Your task to perform on an android device: When is my next meeting? Image 0: 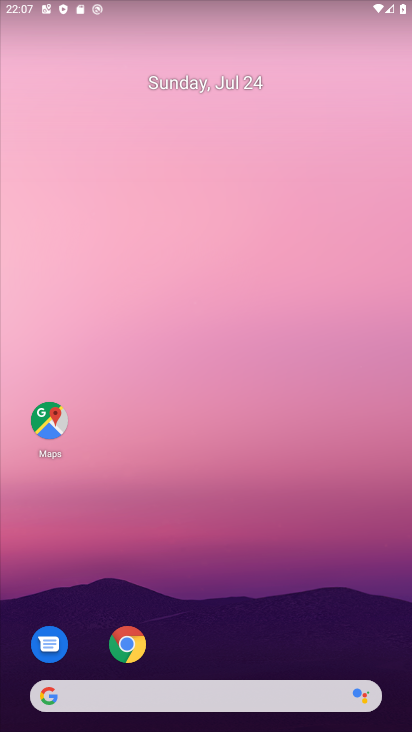
Step 0: drag from (263, 647) to (270, 191)
Your task to perform on an android device: When is my next meeting? Image 1: 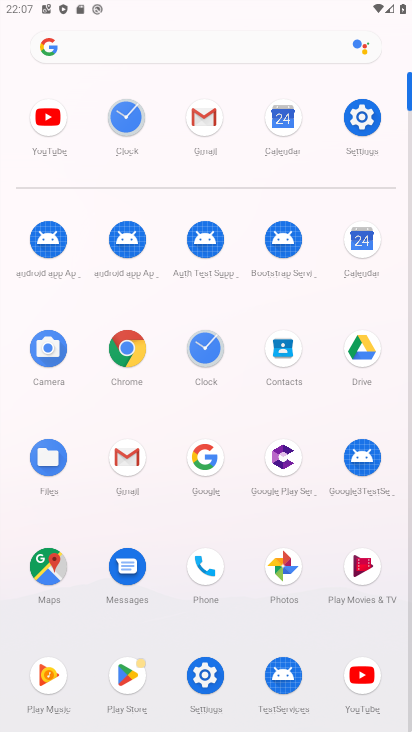
Step 1: click (362, 241)
Your task to perform on an android device: When is my next meeting? Image 2: 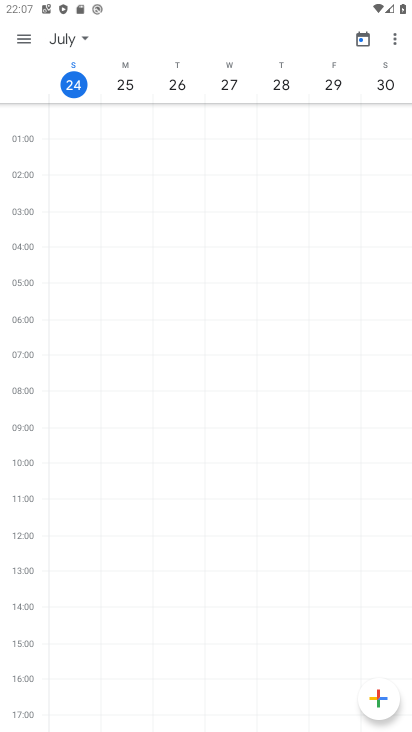
Step 2: click (29, 39)
Your task to perform on an android device: When is my next meeting? Image 3: 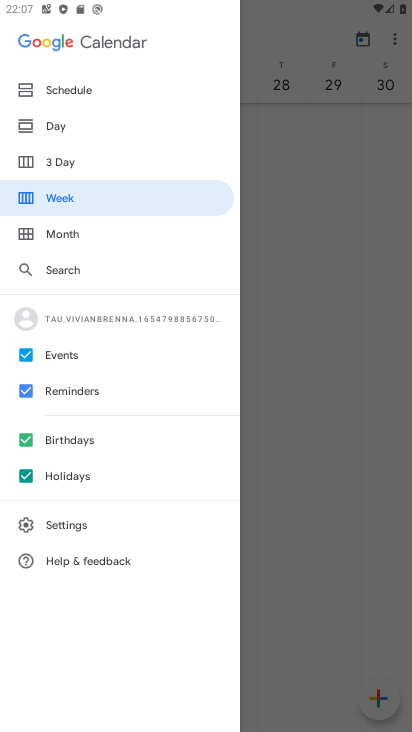
Step 3: click (67, 87)
Your task to perform on an android device: When is my next meeting? Image 4: 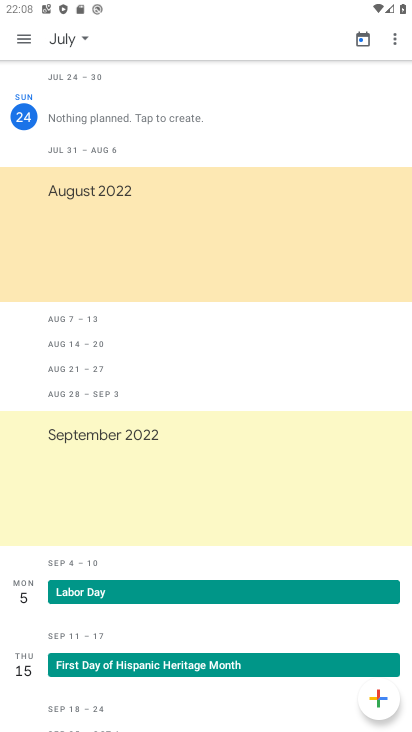
Step 4: task complete